Your task to perform on an android device: empty trash in google photos Image 0: 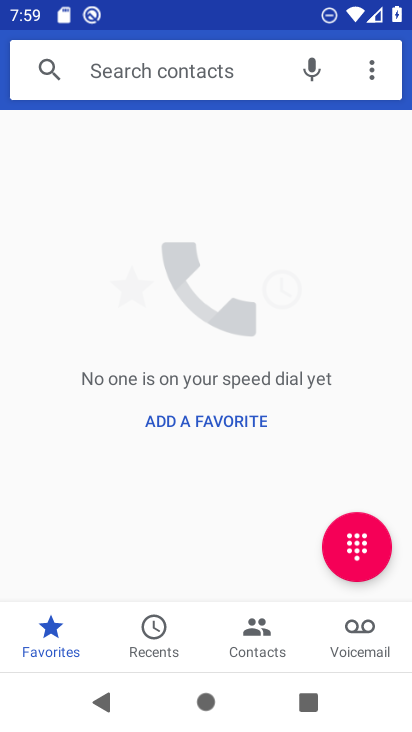
Step 0: press home button
Your task to perform on an android device: empty trash in google photos Image 1: 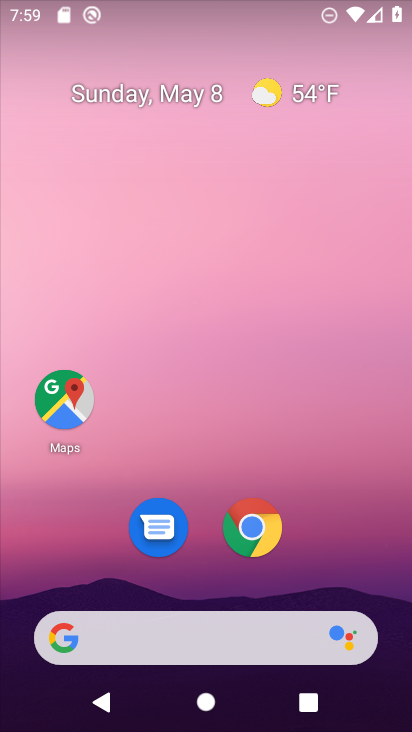
Step 1: drag from (341, 547) to (273, 208)
Your task to perform on an android device: empty trash in google photos Image 2: 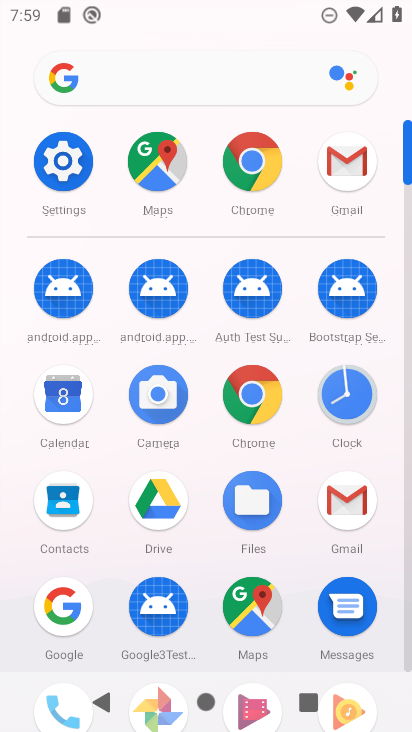
Step 2: drag from (226, 562) to (215, 243)
Your task to perform on an android device: empty trash in google photos Image 3: 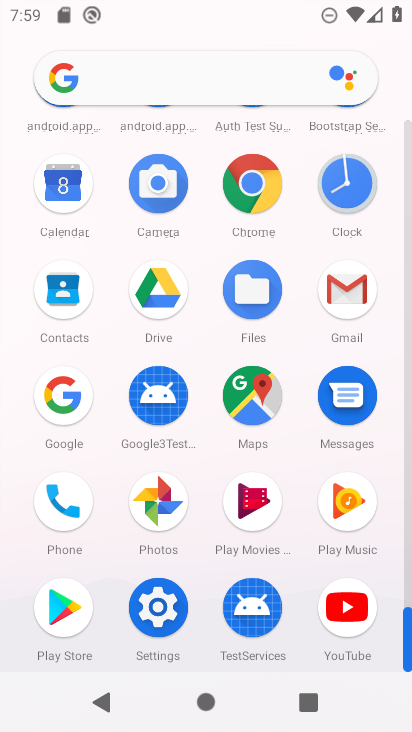
Step 3: click (155, 508)
Your task to perform on an android device: empty trash in google photos Image 4: 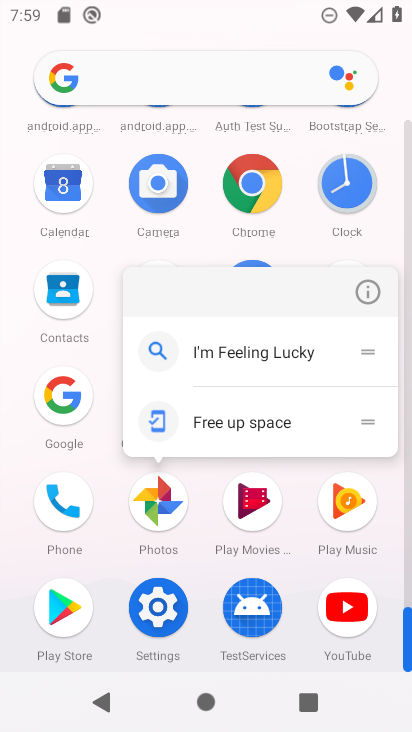
Step 4: click (157, 507)
Your task to perform on an android device: empty trash in google photos Image 5: 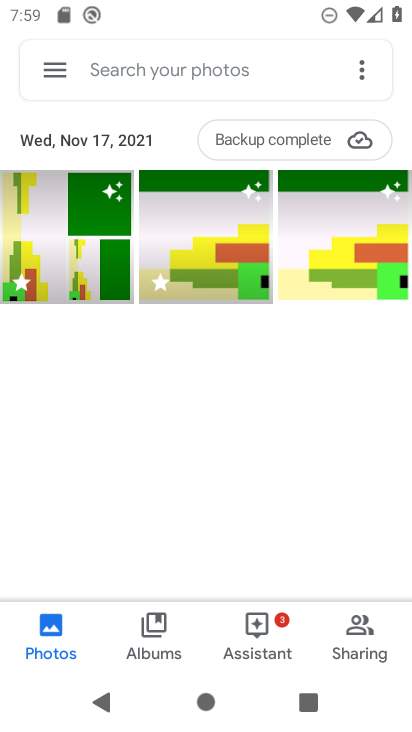
Step 5: click (58, 67)
Your task to perform on an android device: empty trash in google photos Image 6: 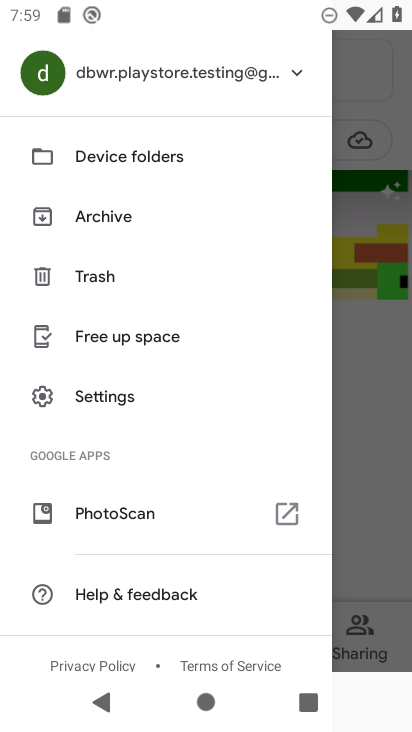
Step 6: click (118, 280)
Your task to perform on an android device: empty trash in google photos Image 7: 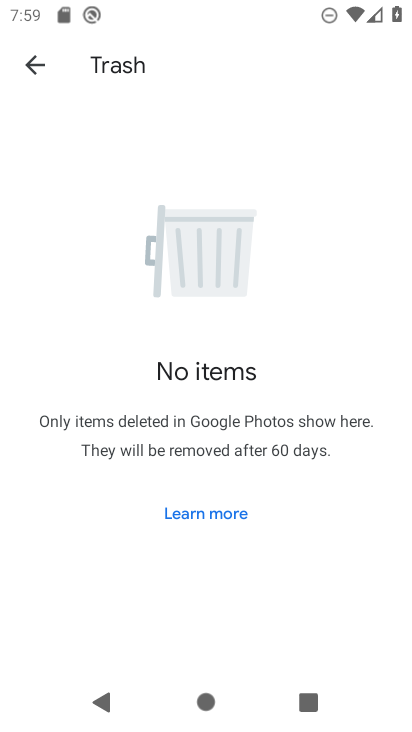
Step 7: task complete